Your task to perform on an android device: change timer sound Image 0: 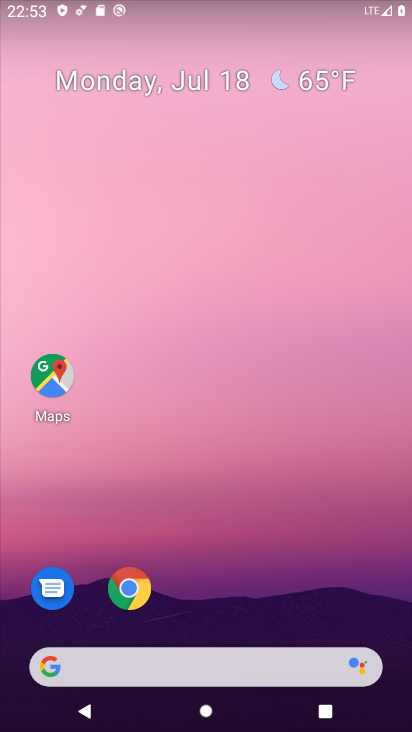
Step 0: press home button
Your task to perform on an android device: change timer sound Image 1: 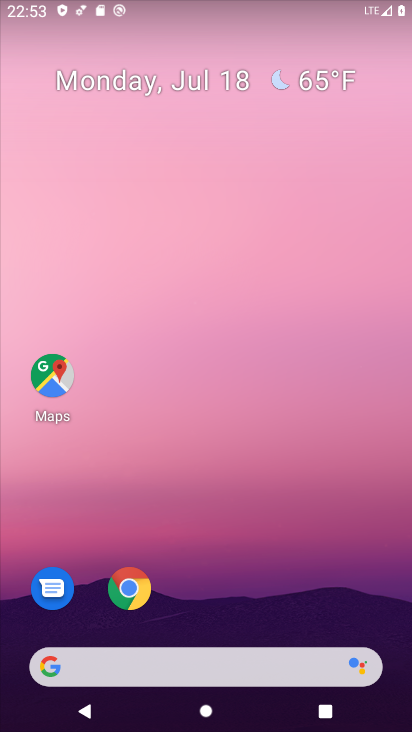
Step 1: drag from (301, 558) to (310, 59)
Your task to perform on an android device: change timer sound Image 2: 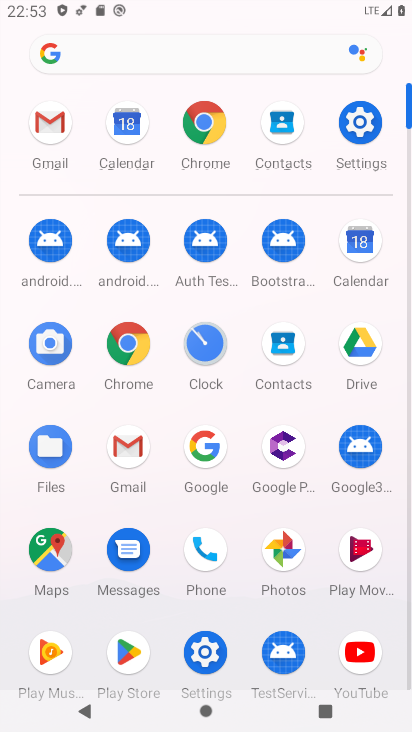
Step 2: click (200, 332)
Your task to perform on an android device: change timer sound Image 3: 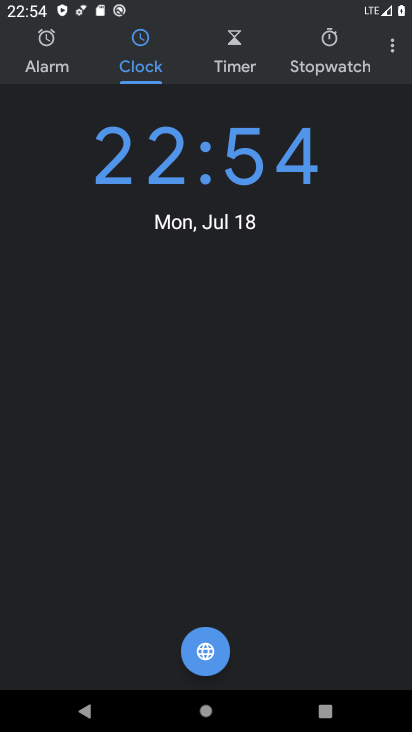
Step 3: click (391, 46)
Your task to perform on an android device: change timer sound Image 4: 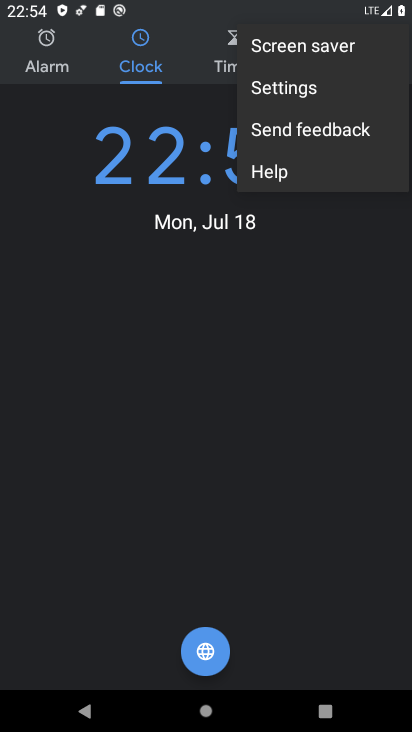
Step 4: click (272, 88)
Your task to perform on an android device: change timer sound Image 5: 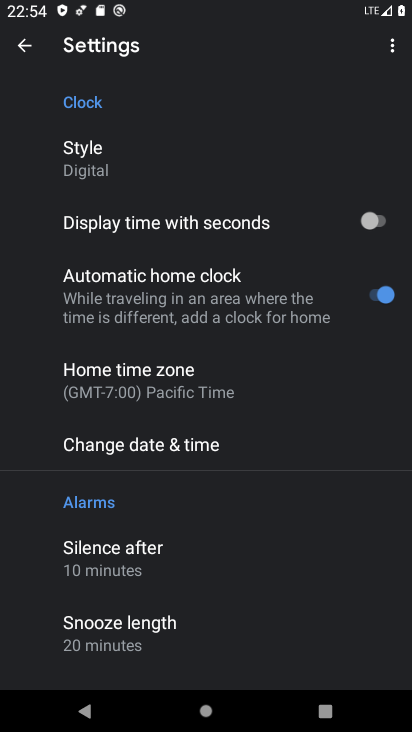
Step 5: drag from (258, 553) to (338, 187)
Your task to perform on an android device: change timer sound Image 6: 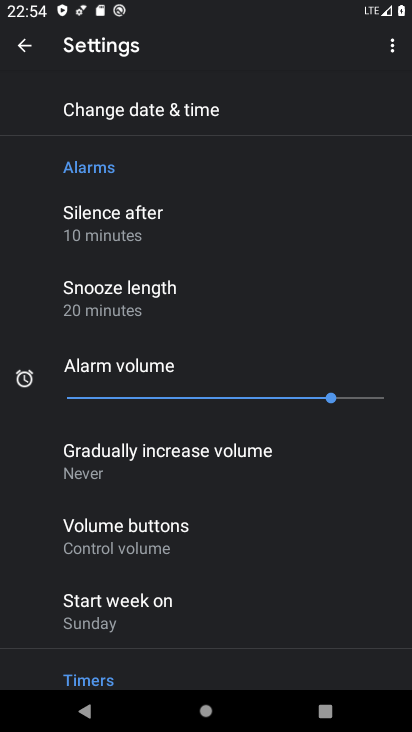
Step 6: drag from (245, 634) to (276, 197)
Your task to perform on an android device: change timer sound Image 7: 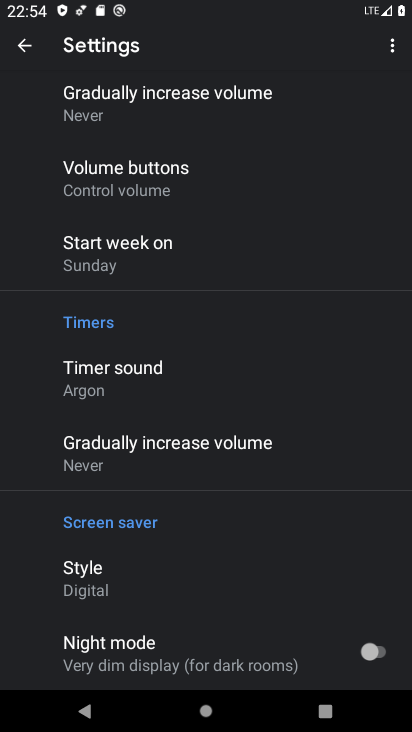
Step 7: drag from (237, 567) to (235, 165)
Your task to perform on an android device: change timer sound Image 8: 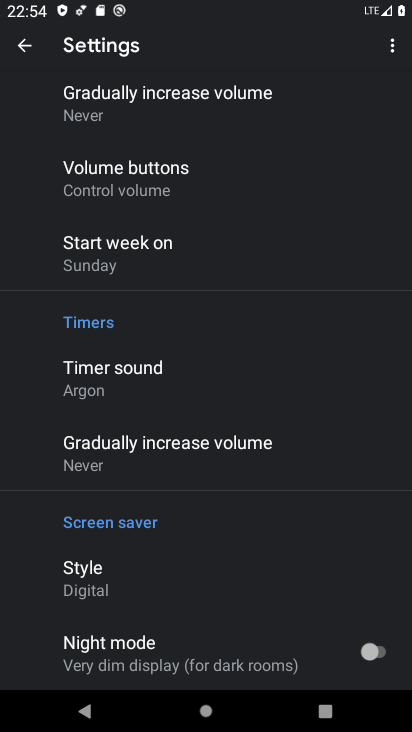
Step 8: drag from (204, 545) to (207, 110)
Your task to perform on an android device: change timer sound Image 9: 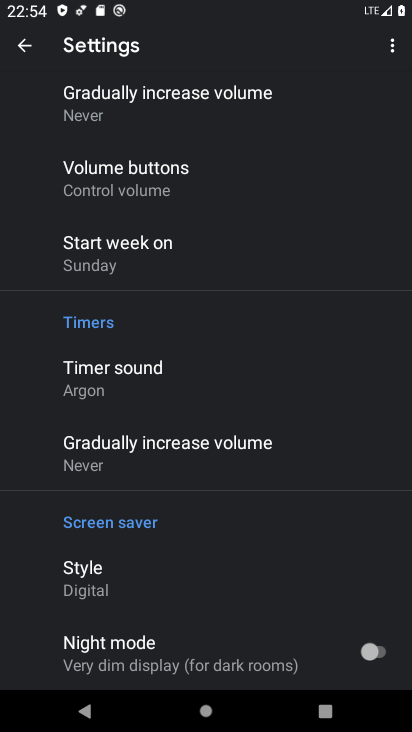
Step 9: click (154, 375)
Your task to perform on an android device: change timer sound Image 10: 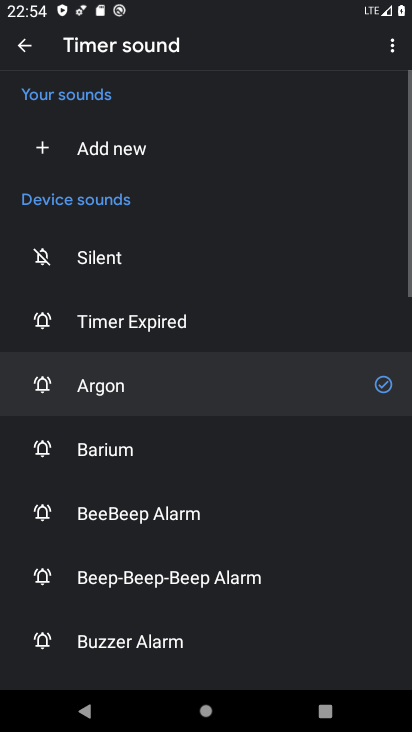
Step 10: click (109, 451)
Your task to perform on an android device: change timer sound Image 11: 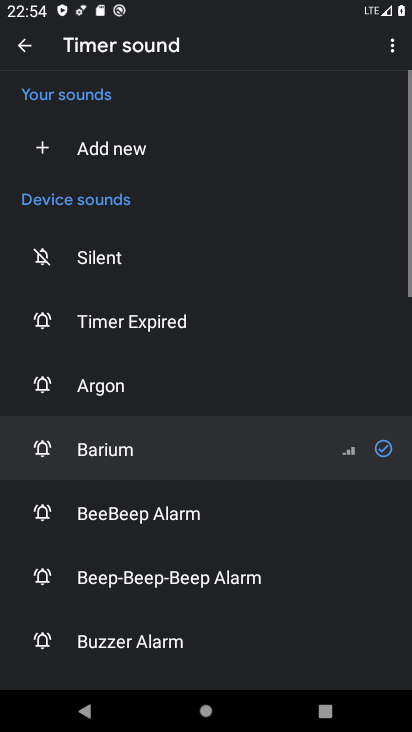
Step 11: task complete